Your task to perform on an android device: turn on translation in the chrome app Image 0: 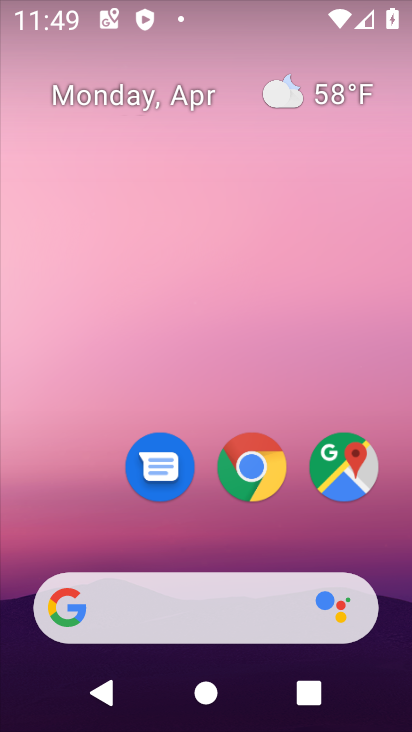
Step 0: click (264, 490)
Your task to perform on an android device: turn on translation in the chrome app Image 1: 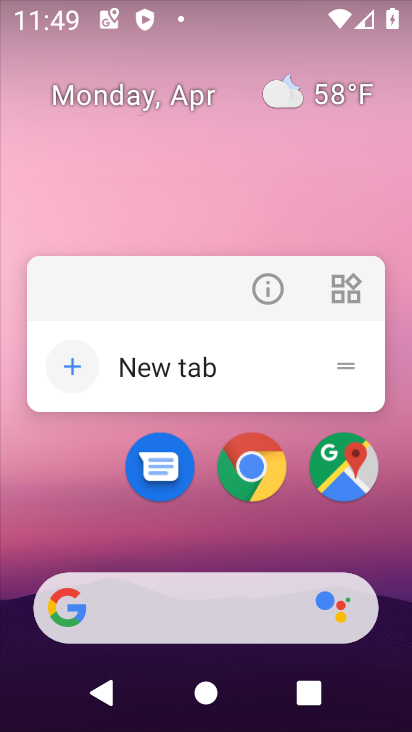
Step 1: click (180, 374)
Your task to perform on an android device: turn on translation in the chrome app Image 2: 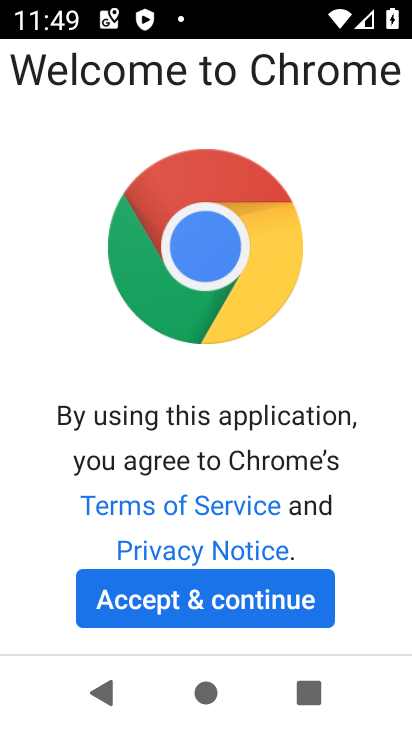
Step 2: click (194, 602)
Your task to perform on an android device: turn on translation in the chrome app Image 3: 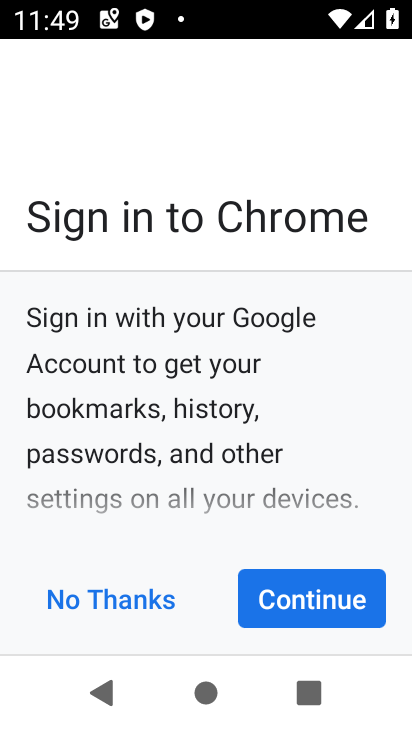
Step 3: click (279, 605)
Your task to perform on an android device: turn on translation in the chrome app Image 4: 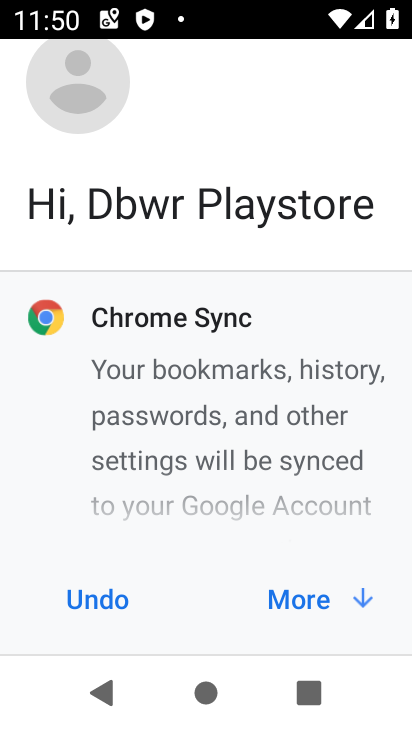
Step 4: click (301, 603)
Your task to perform on an android device: turn on translation in the chrome app Image 5: 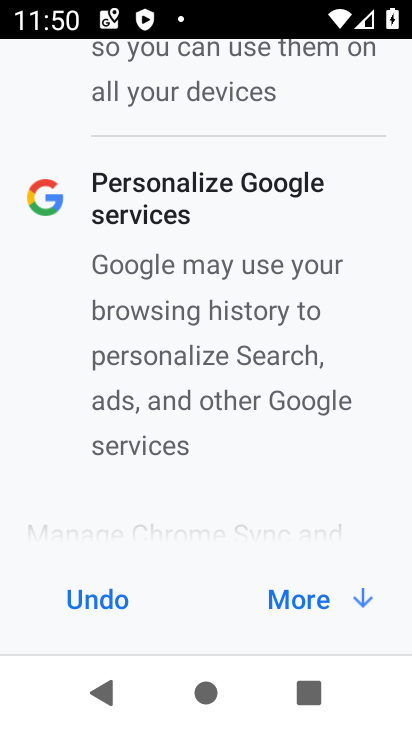
Step 5: click (301, 603)
Your task to perform on an android device: turn on translation in the chrome app Image 6: 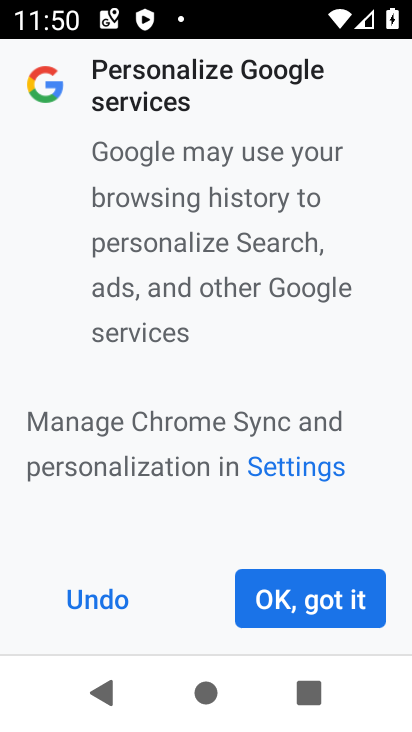
Step 6: click (301, 603)
Your task to perform on an android device: turn on translation in the chrome app Image 7: 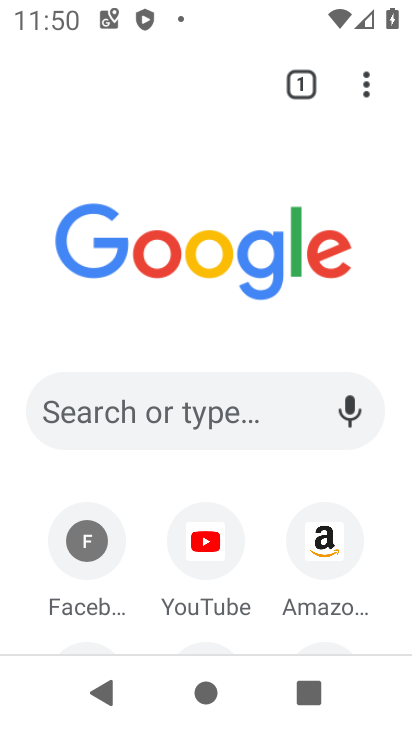
Step 7: click (363, 91)
Your task to perform on an android device: turn on translation in the chrome app Image 8: 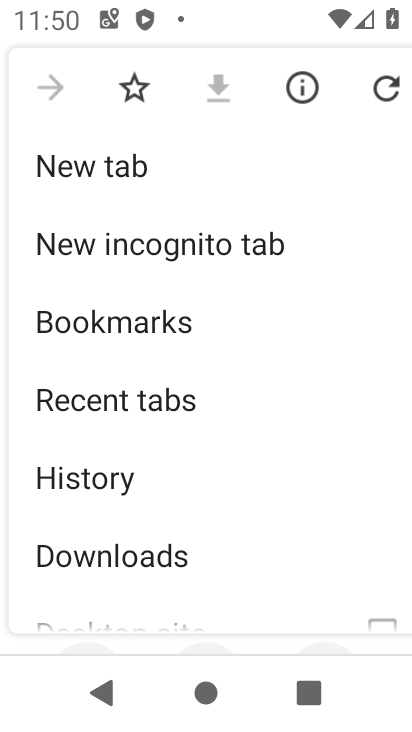
Step 8: drag from (68, 678) to (116, 167)
Your task to perform on an android device: turn on translation in the chrome app Image 9: 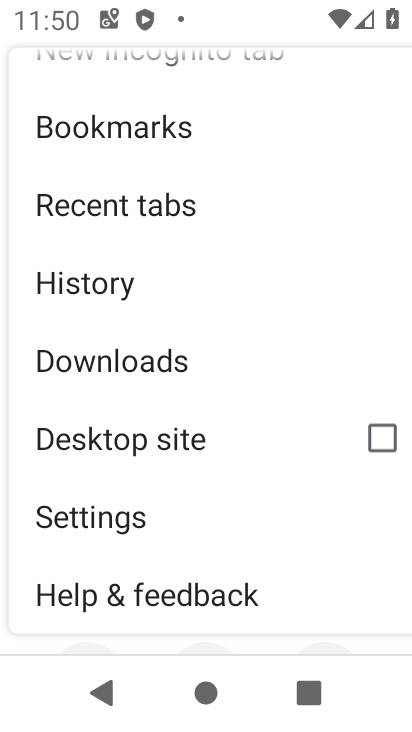
Step 9: drag from (101, 532) to (178, 66)
Your task to perform on an android device: turn on translation in the chrome app Image 10: 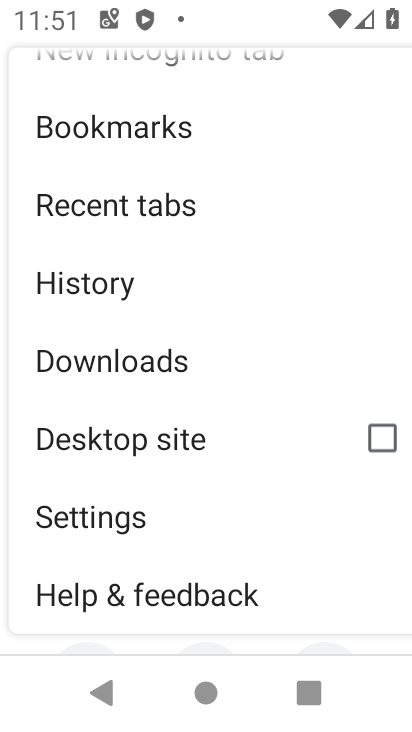
Step 10: drag from (142, 564) to (174, 132)
Your task to perform on an android device: turn on translation in the chrome app Image 11: 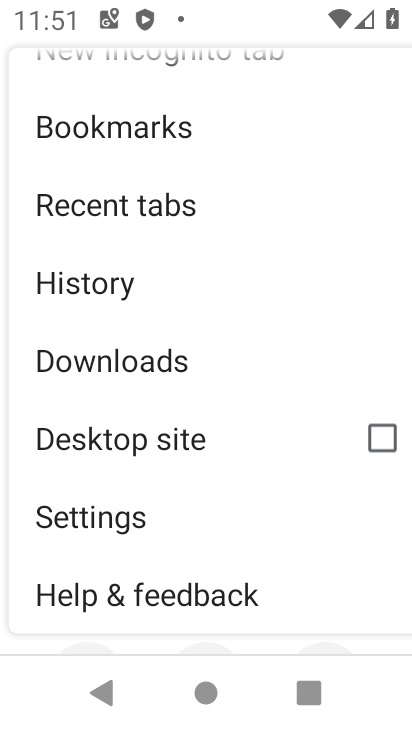
Step 11: click (72, 525)
Your task to perform on an android device: turn on translation in the chrome app Image 12: 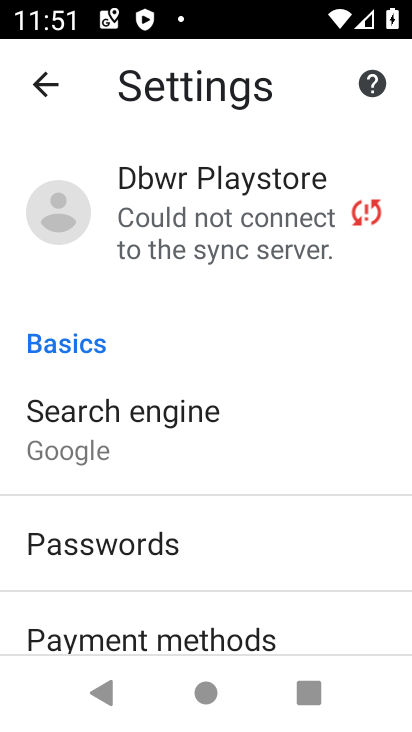
Step 12: drag from (95, 561) to (200, 17)
Your task to perform on an android device: turn on translation in the chrome app Image 13: 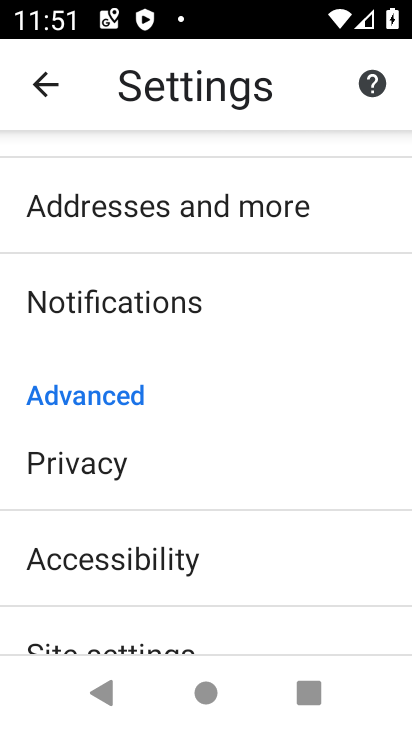
Step 13: drag from (191, 514) to (187, 116)
Your task to perform on an android device: turn on translation in the chrome app Image 14: 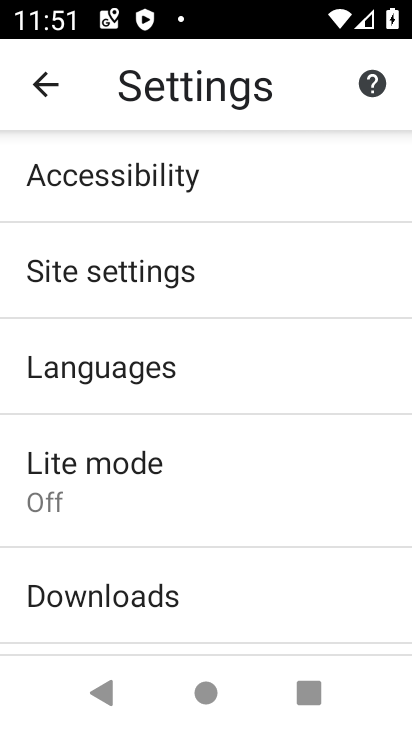
Step 14: click (135, 382)
Your task to perform on an android device: turn on translation in the chrome app Image 15: 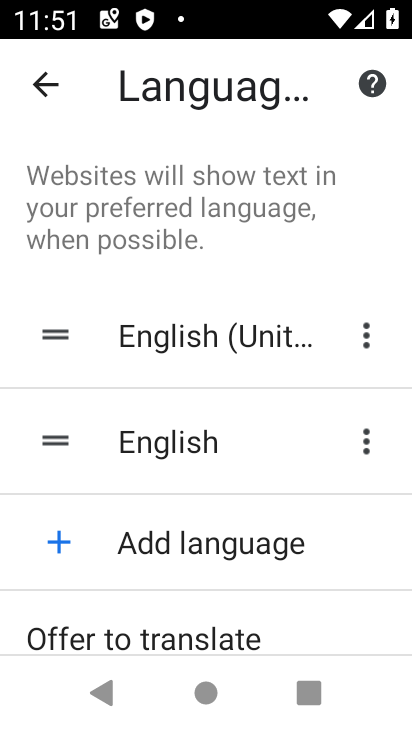
Step 15: task complete